Your task to perform on an android device: check storage Image 0: 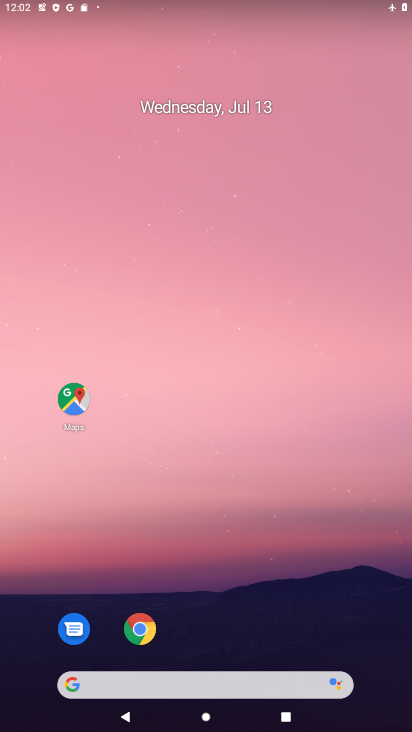
Step 0: drag from (215, 647) to (244, 429)
Your task to perform on an android device: check storage Image 1: 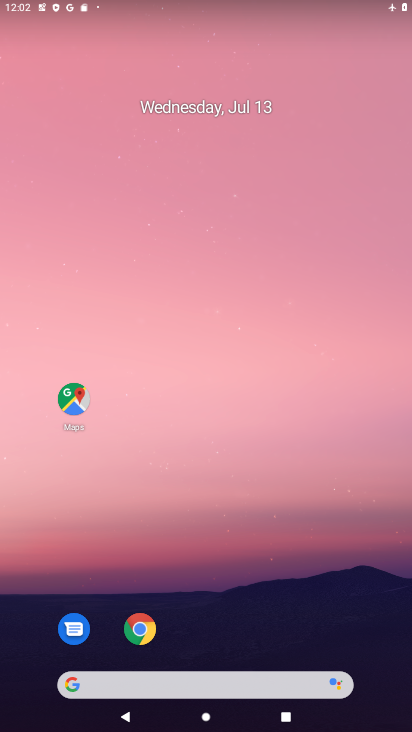
Step 1: drag from (190, 612) to (202, 253)
Your task to perform on an android device: check storage Image 2: 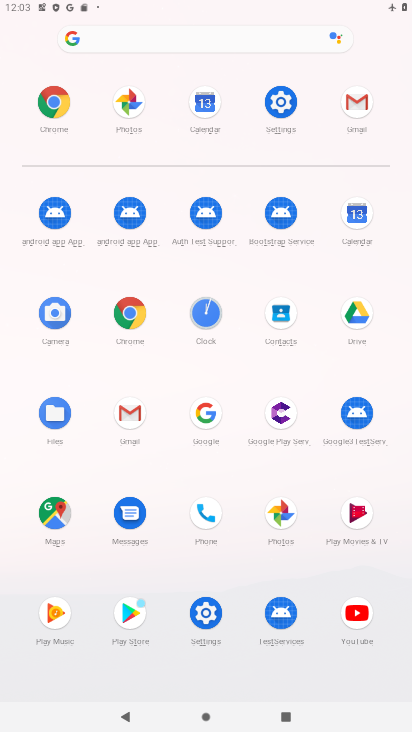
Step 2: click (281, 90)
Your task to perform on an android device: check storage Image 3: 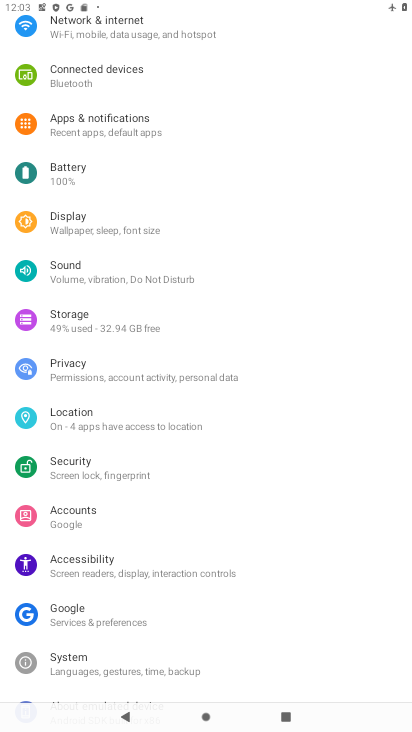
Step 3: click (122, 315)
Your task to perform on an android device: check storage Image 4: 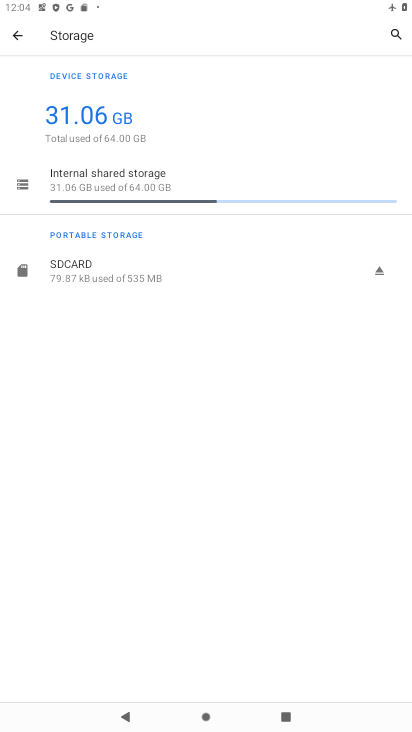
Step 4: task complete